Your task to perform on an android device: Open display settings Image 0: 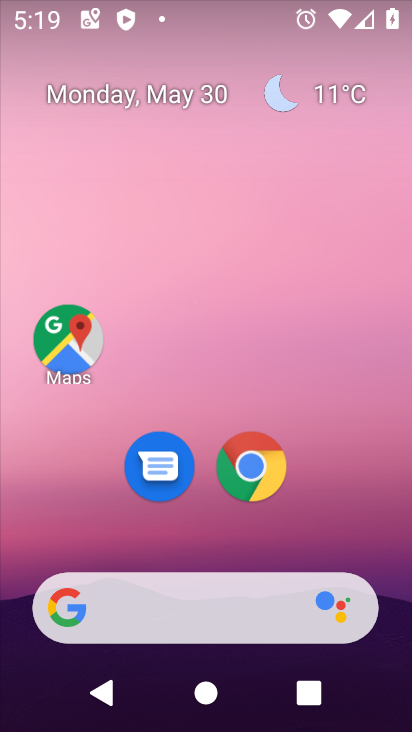
Step 0: drag from (314, 492) to (309, 104)
Your task to perform on an android device: Open display settings Image 1: 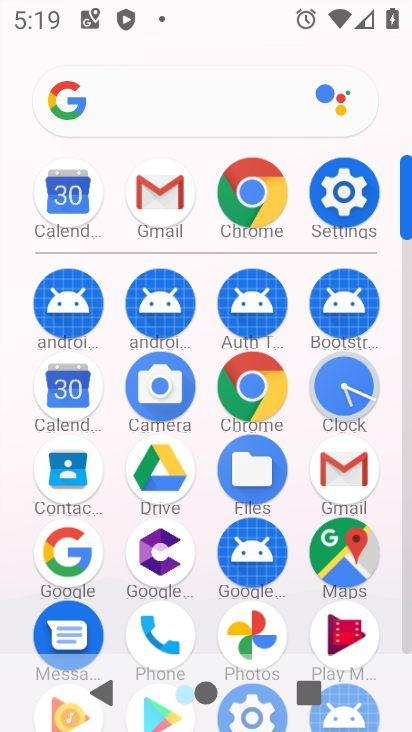
Step 1: click (342, 173)
Your task to perform on an android device: Open display settings Image 2: 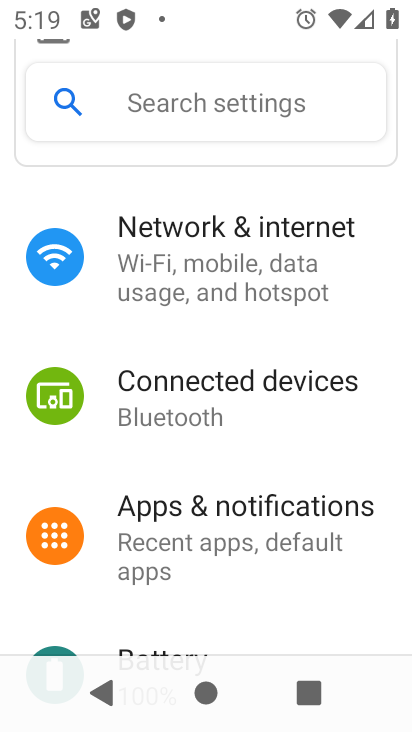
Step 2: drag from (264, 555) to (253, 151)
Your task to perform on an android device: Open display settings Image 3: 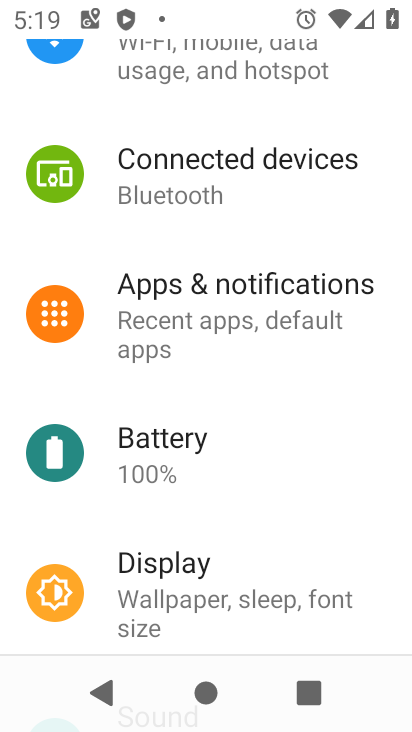
Step 3: click (181, 561)
Your task to perform on an android device: Open display settings Image 4: 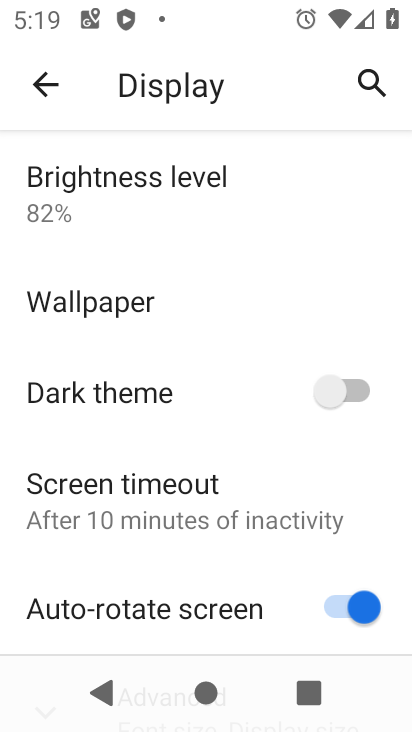
Step 4: task complete